Your task to perform on an android device: Open Youtube and go to the subscriptions tab Image 0: 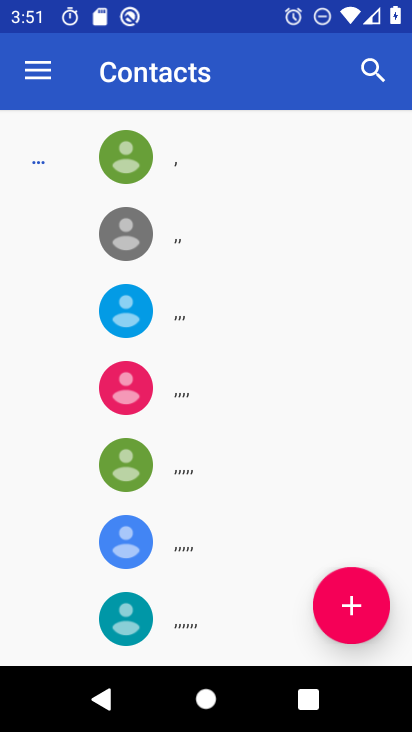
Step 0: press home button
Your task to perform on an android device: Open Youtube and go to the subscriptions tab Image 1: 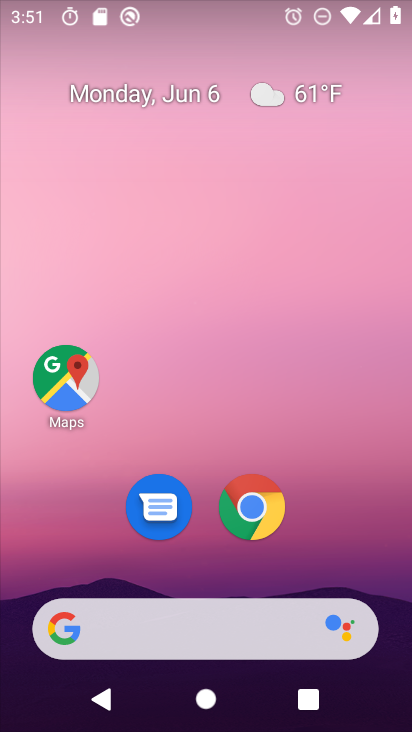
Step 1: drag from (197, 583) to (199, 151)
Your task to perform on an android device: Open Youtube and go to the subscriptions tab Image 2: 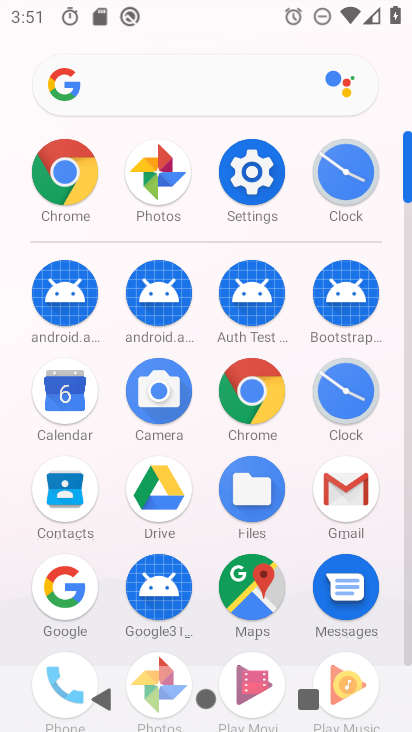
Step 2: drag from (199, 518) to (203, 185)
Your task to perform on an android device: Open Youtube and go to the subscriptions tab Image 3: 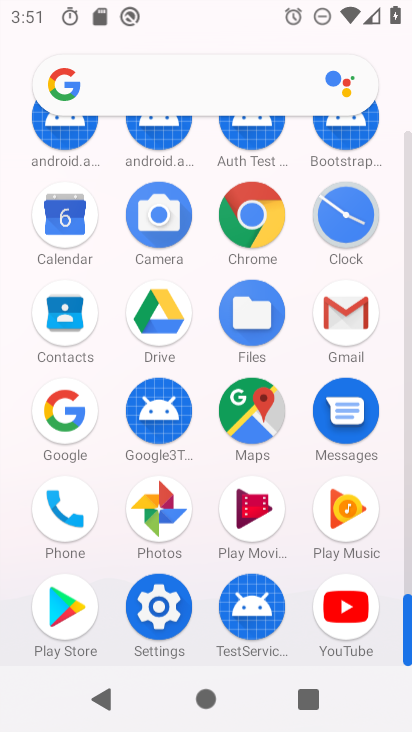
Step 3: click (347, 615)
Your task to perform on an android device: Open Youtube and go to the subscriptions tab Image 4: 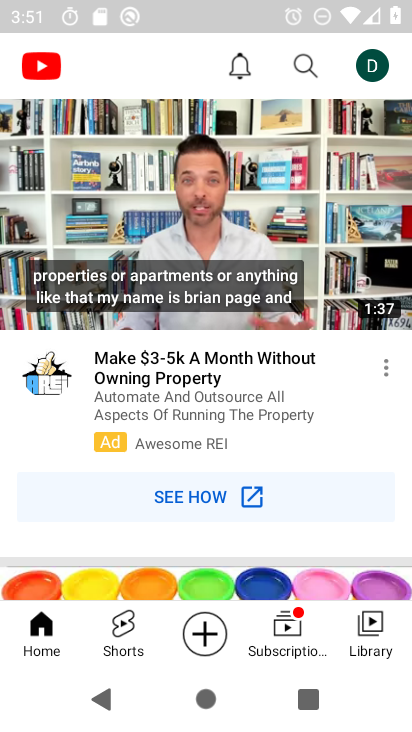
Step 4: click (291, 624)
Your task to perform on an android device: Open Youtube and go to the subscriptions tab Image 5: 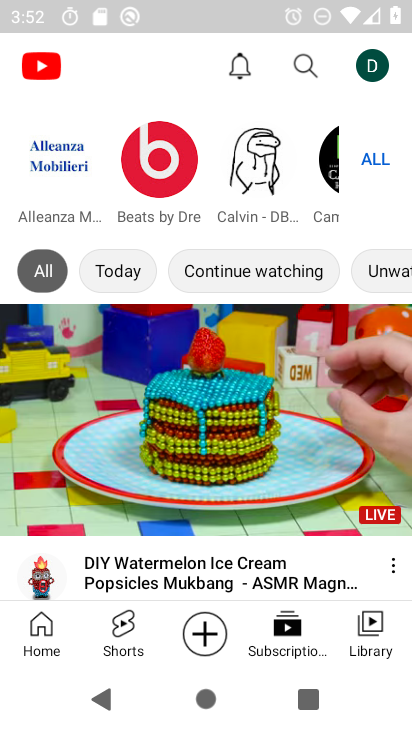
Step 5: task complete